Your task to perform on an android device: change notification settings in the gmail app Image 0: 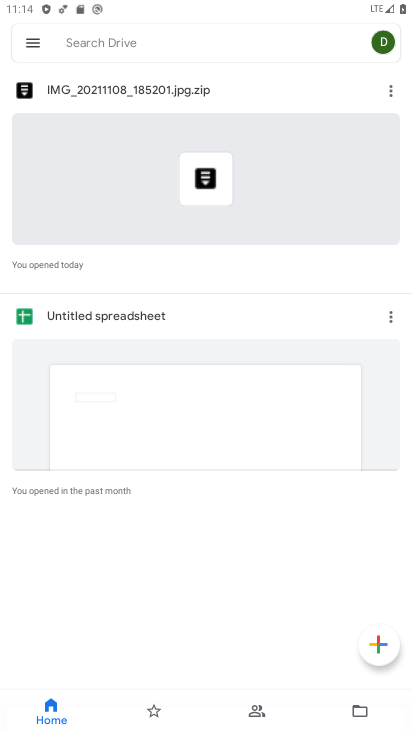
Step 0: press home button
Your task to perform on an android device: change notification settings in the gmail app Image 1: 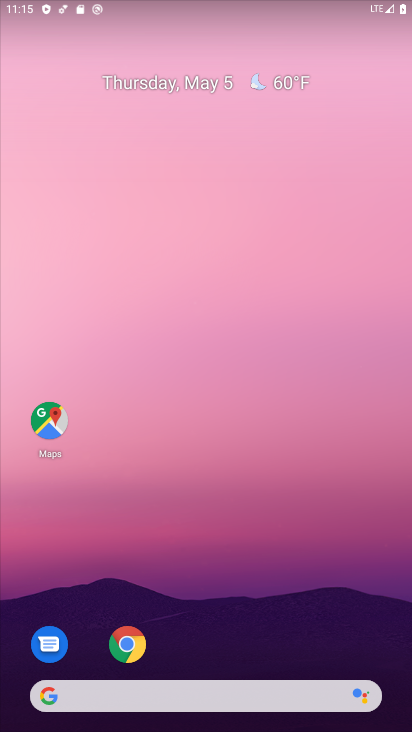
Step 1: drag from (345, 648) to (316, 181)
Your task to perform on an android device: change notification settings in the gmail app Image 2: 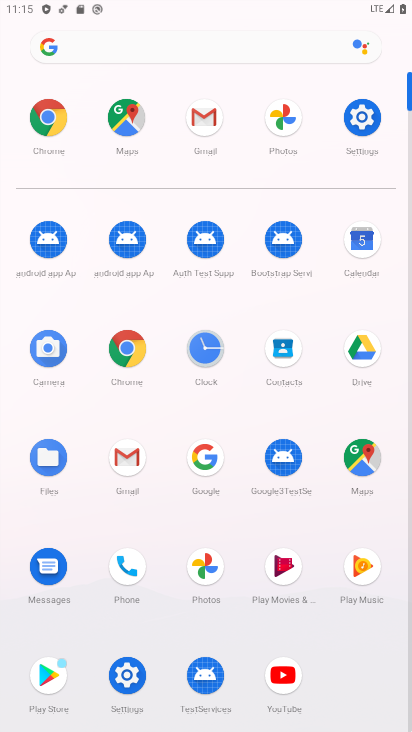
Step 2: click (128, 454)
Your task to perform on an android device: change notification settings in the gmail app Image 3: 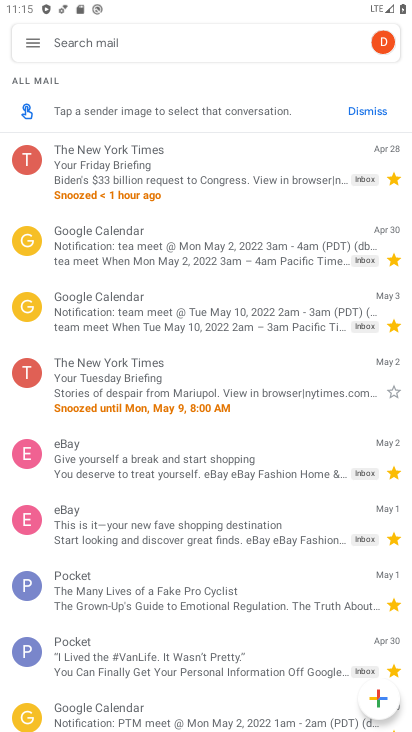
Step 3: click (38, 41)
Your task to perform on an android device: change notification settings in the gmail app Image 4: 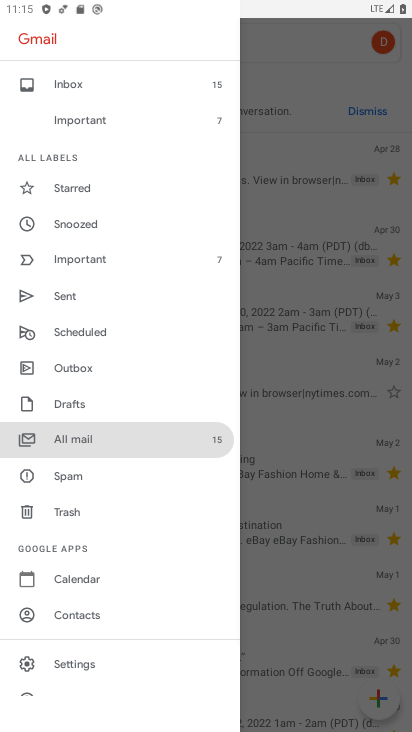
Step 4: drag from (144, 669) to (137, 251)
Your task to perform on an android device: change notification settings in the gmail app Image 5: 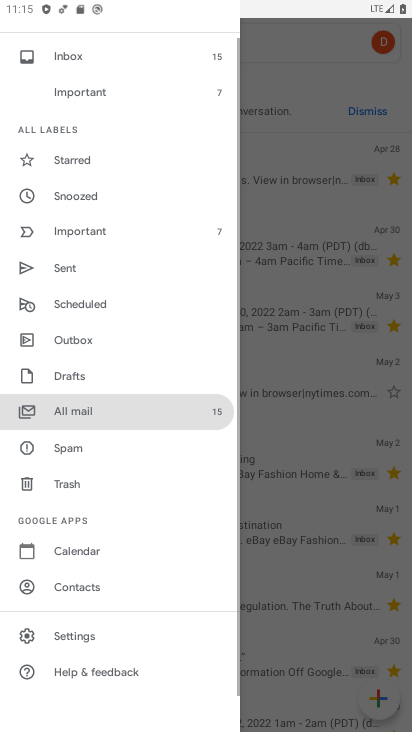
Step 5: click (87, 631)
Your task to perform on an android device: change notification settings in the gmail app Image 6: 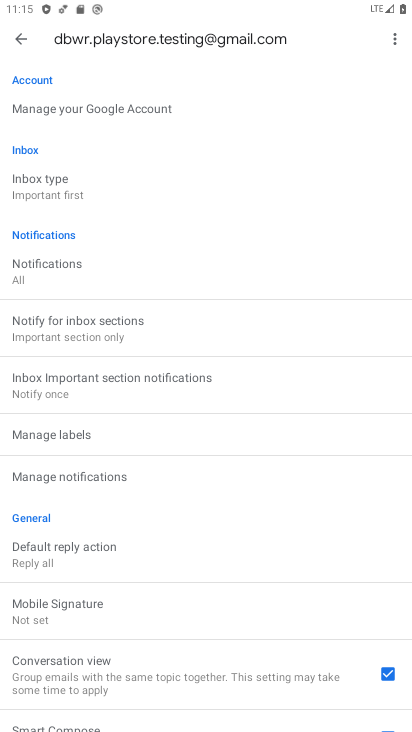
Step 6: click (72, 271)
Your task to perform on an android device: change notification settings in the gmail app Image 7: 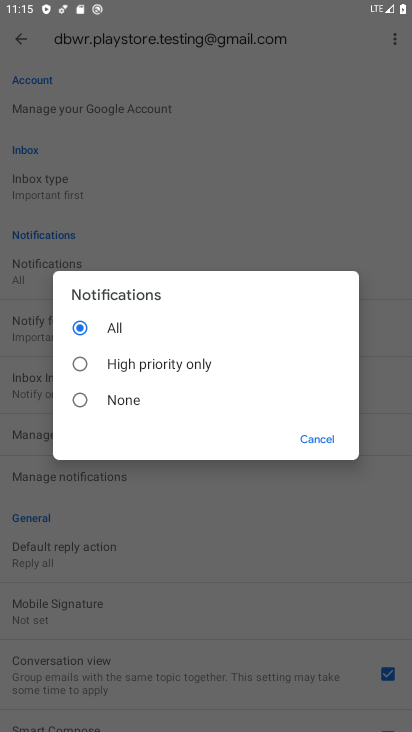
Step 7: click (102, 400)
Your task to perform on an android device: change notification settings in the gmail app Image 8: 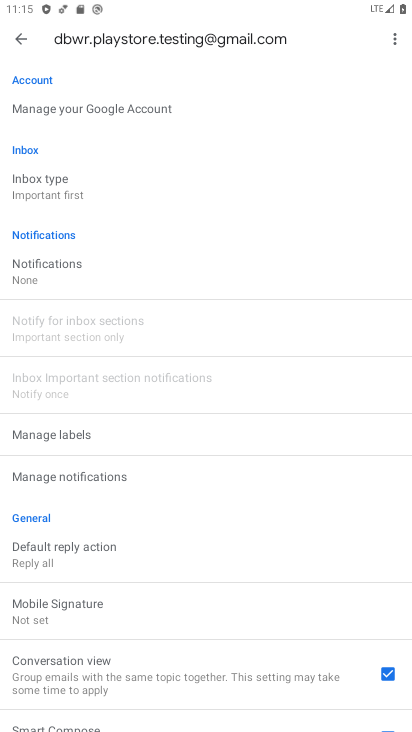
Step 8: task complete